Your task to perform on an android device: all mails in gmail Image 0: 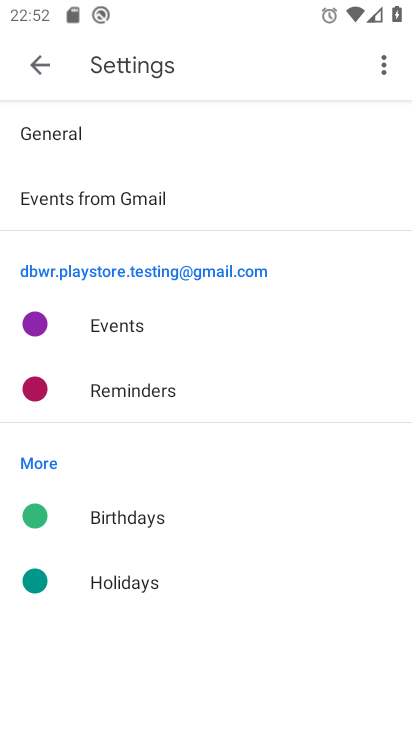
Step 0: press home button
Your task to perform on an android device: all mails in gmail Image 1: 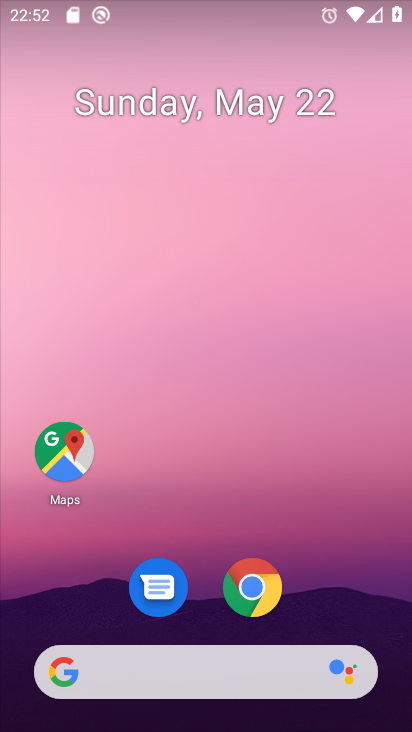
Step 1: drag from (224, 471) to (199, 1)
Your task to perform on an android device: all mails in gmail Image 2: 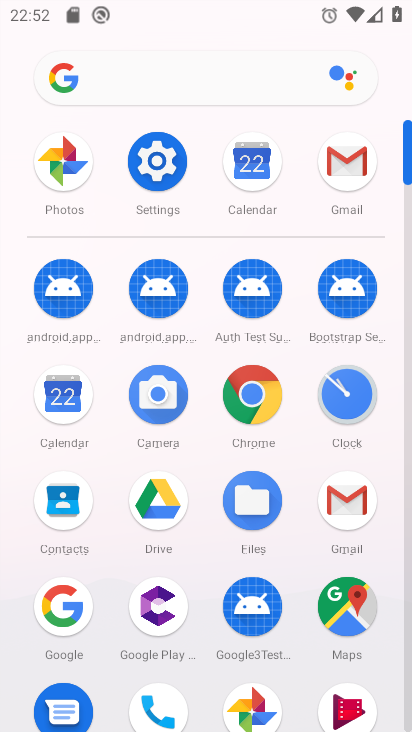
Step 2: click (348, 161)
Your task to perform on an android device: all mails in gmail Image 3: 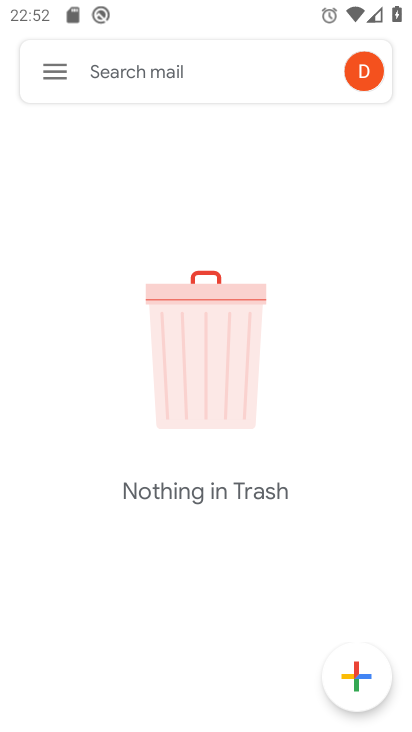
Step 3: click (60, 70)
Your task to perform on an android device: all mails in gmail Image 4: 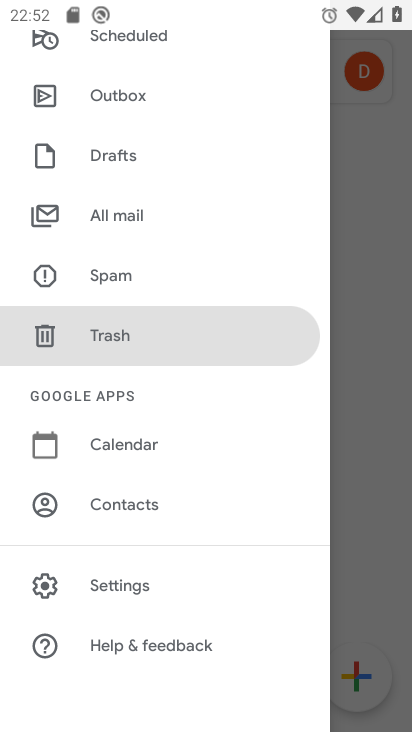
Step 4: click (124, 222)
Your task to perform on an android device: all mails in gmail Image 5: 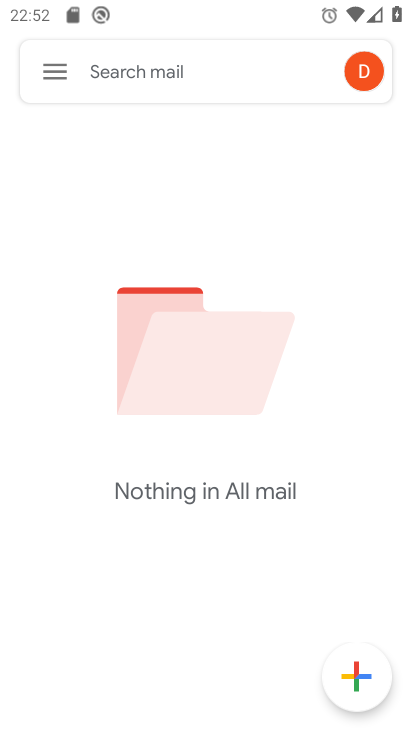
Step 5: task complete